Your task to perform on an android device: Open my contact list Image 0: 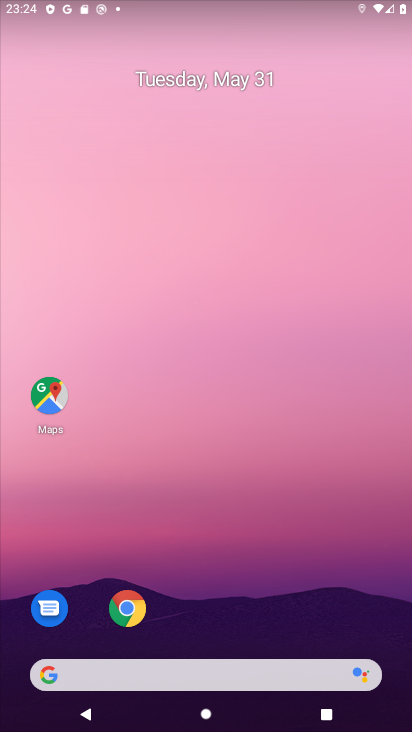
Step 0: press home button
Your task to perform on an android device: Open my contact list Image 1: 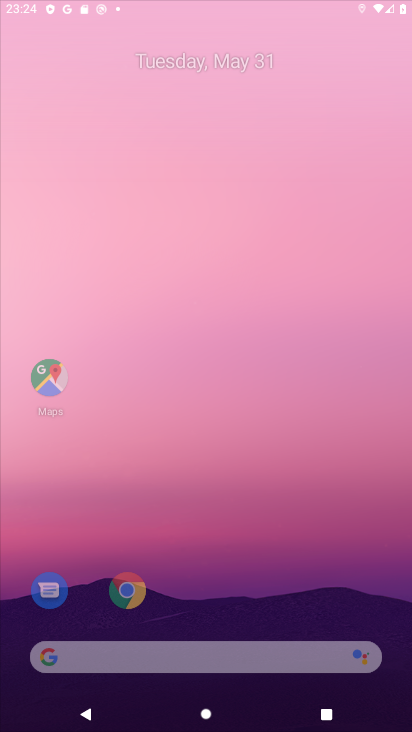
Step 1: drag from (324, 577) to (326, 272)
Your task to perform on an android device: Open my contact list Image 2: 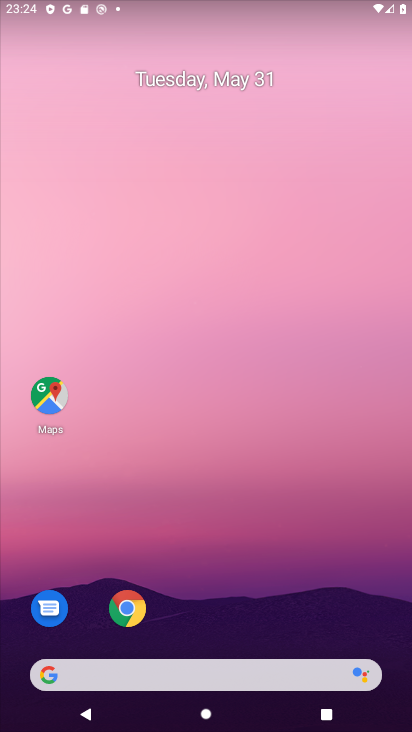
Step 2: drag from (325, 273) to (365, 37)
Your task to perform on an android device: Open my contact list Image 3: 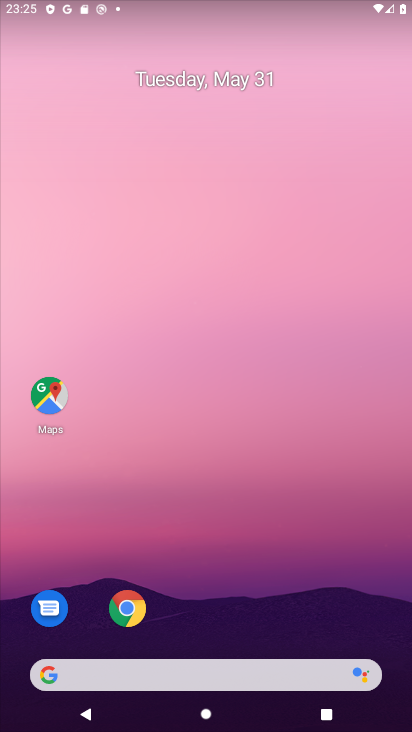
Step 3: drag from (279, 627) to (364, 9)
Your task to perform on an android device: Open my contact list Image 4: 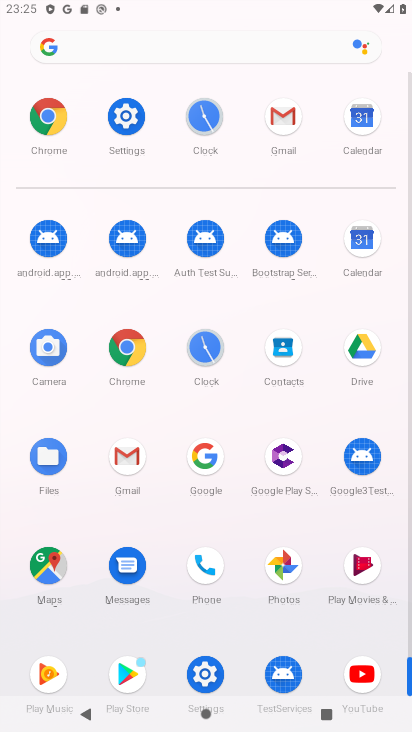
Step 4: click (283, 364)
Your task to perform on an android device: Open my contact list Image 5: 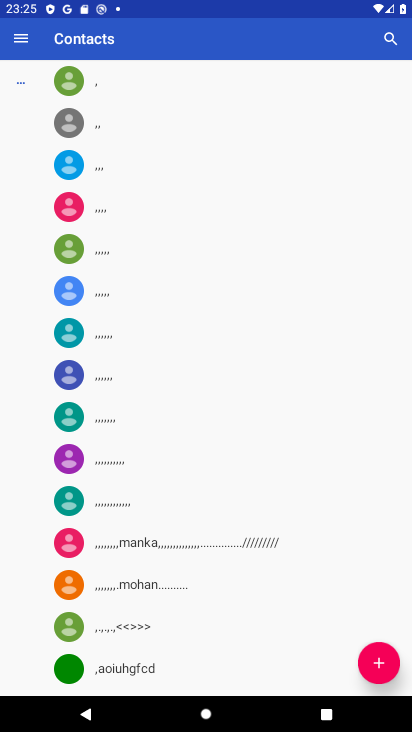
Step 5: task complete